Your task to perform on an android device: Open calendar and show me the third week of next month Image 0: 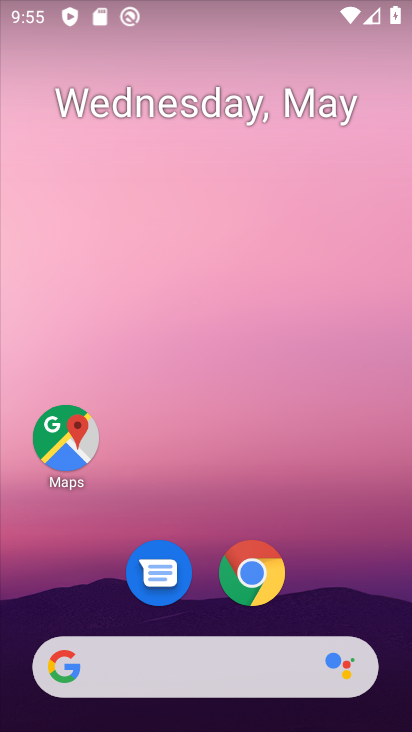
Step 0: drag from (249, 407) to (144, 0)
Your task to perform on an android device: Open calendar and show me the third week of next month Image 1: 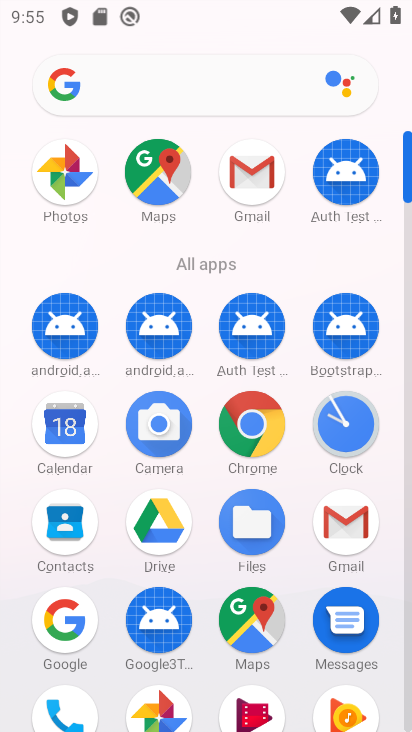
Step 1: click (54, 424)
Your task to perform on an android device: Open calendar and show me the third week of next month Image 2: 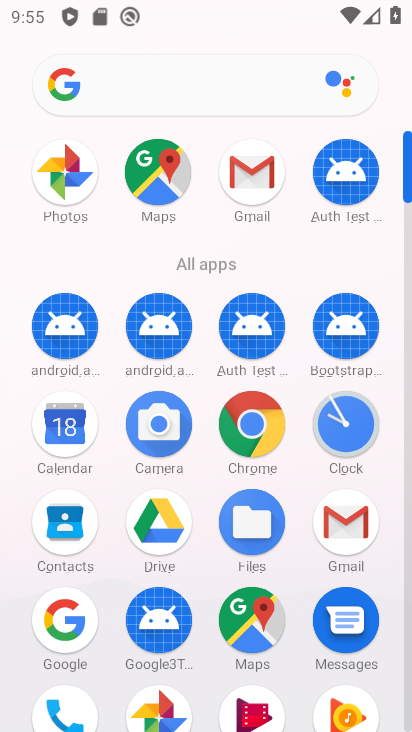
Step 2: click (60, 419)
Your task to perform on an android device: Open calendar and show me the third week of next month Image 3: 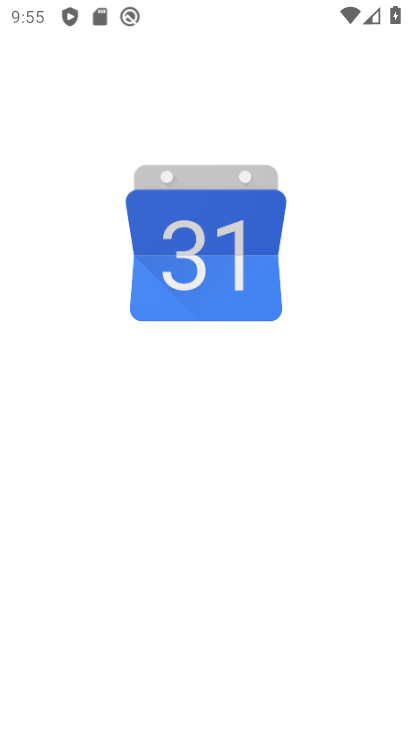
Step 3: click (61, 413)
Your task to perform on an android device: Open calendar and show me the third week of next month Image 4: 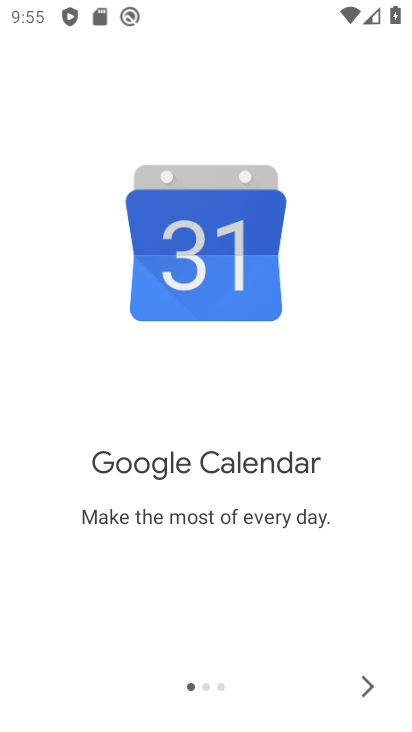
Step 4: click (369, 683)
Your task to perform on an android device: Open calendar and show me the third week of next month Image 5: 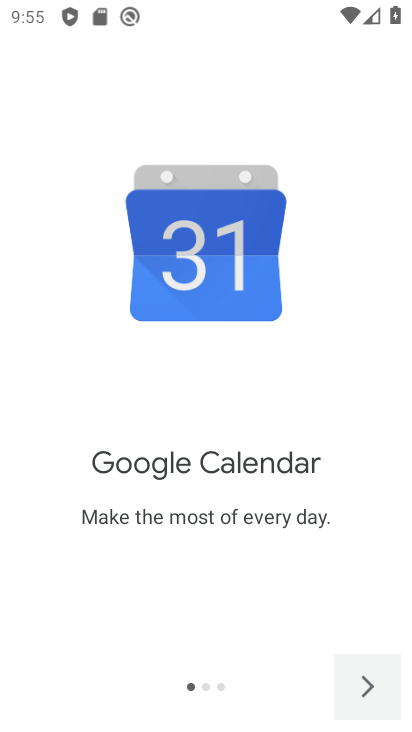
Step 5: click (359, 660)
Your task to perform on an android device: Open calendar and show me the third week of next month Image 6: 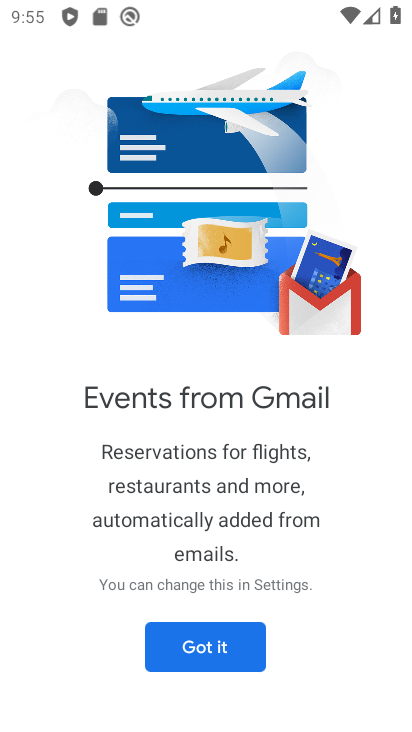
Step 6: click (200, 646)
Your task to perform on an android device: Open calendar and show me the third week of next month Image 7: 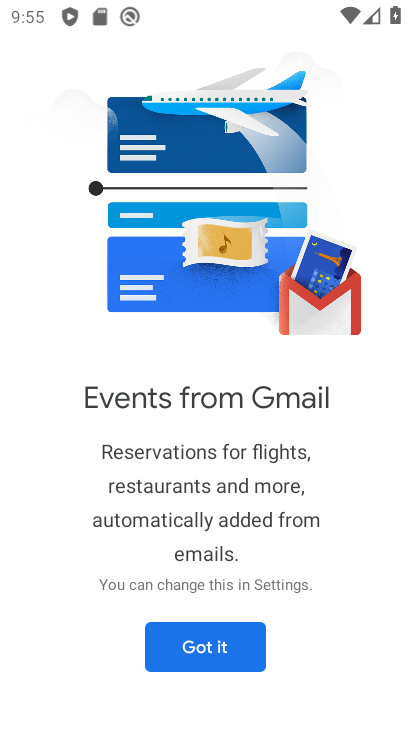
Step 7: click (203, 642)
Your task to perform on an android device: Open calendar and show me the third week of next month Image 8: 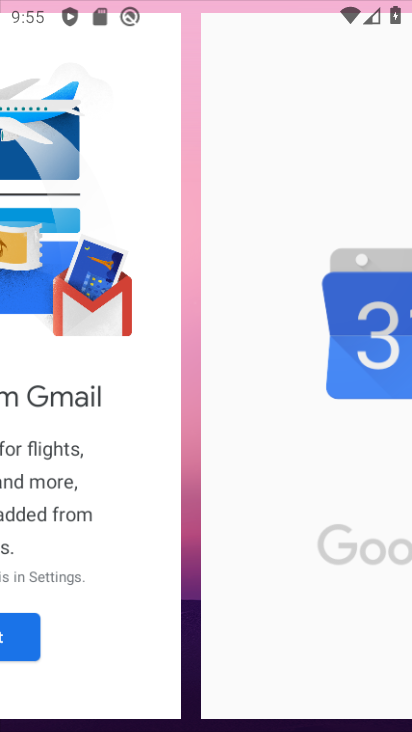
Step 8: click (196, 642)
Your task to perform on an android device: Open calendar and show me the third week of next month Image 9: 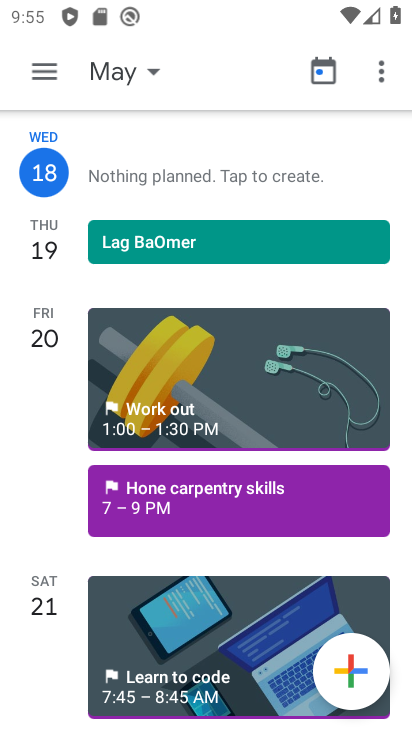
Step 9: drag from (207, 544) to (142, 4)
Your task to perform on an android device: Open calendar and show me the third week of next month Image 10: 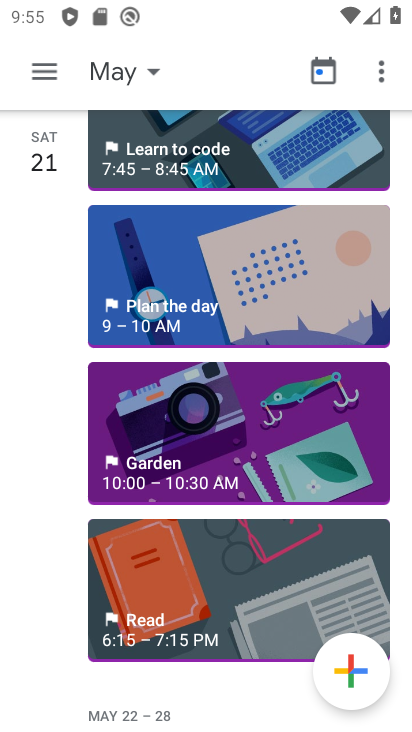
Step 10: drag from (138, 330) to (138, 92)
Your task to perform on an android device: Open calendar and show me the third week of next month Image 11: 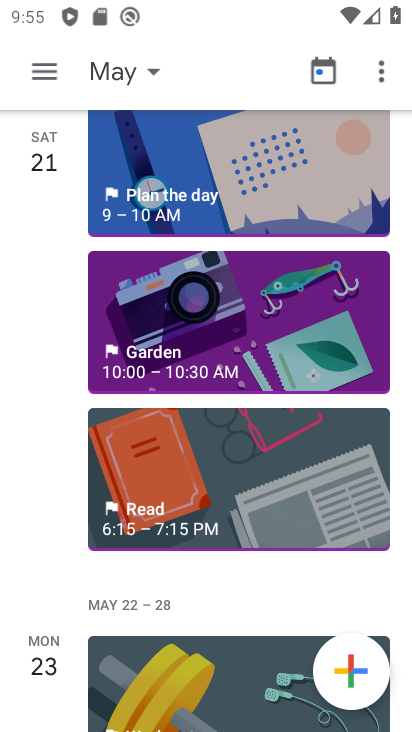
Step 11: drag from (140, 202) to (152, 8)
Your task to perform on an android device: Open calendar and show me the third week of next month Image 12: 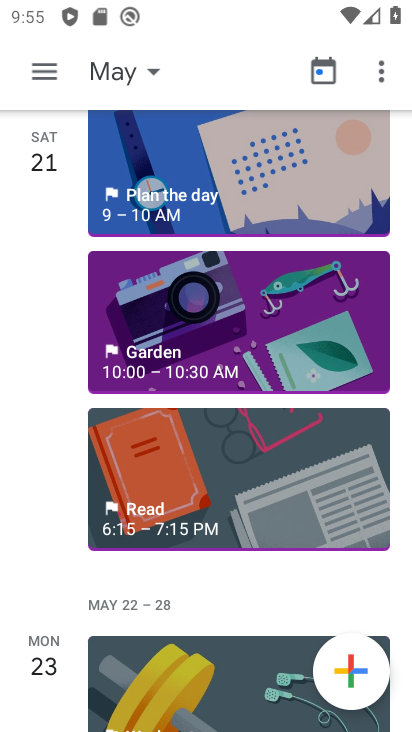
Step 12: drag from (171, 307) to (175, 24)
Your task to perform on an android device: Open calendar and show me the third week of next month Image 13: 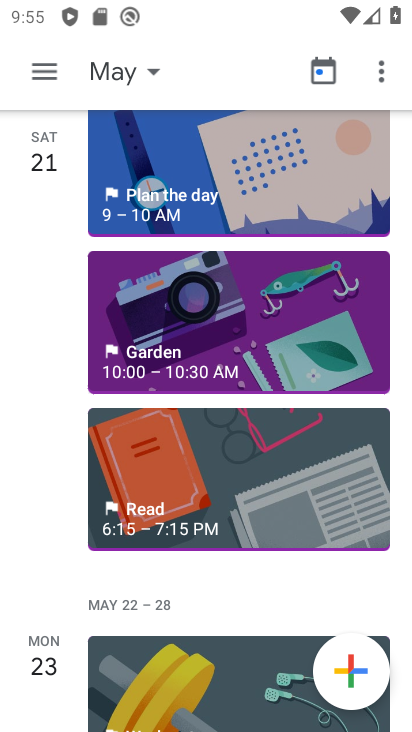
Step 13: drag from (190, 404) to (167, 78)
Your task to perform on an android device: Open calendar and show me the third week of next month Image 14: 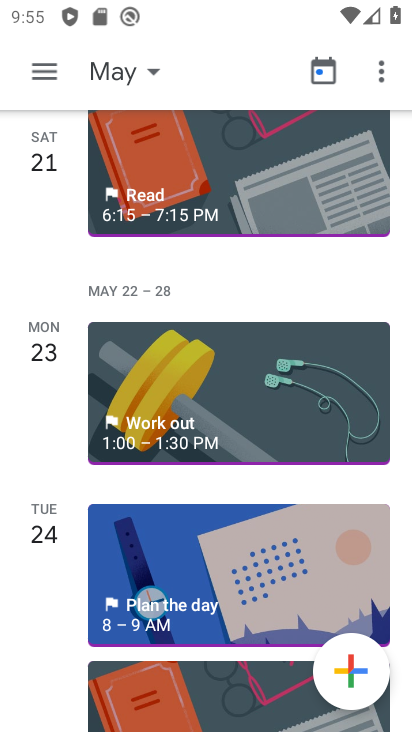
Step 14: drag from (190, 558) to (157, 166)
Your task to perform on an android device: Open calendar and show me the third week of next month Image 15: 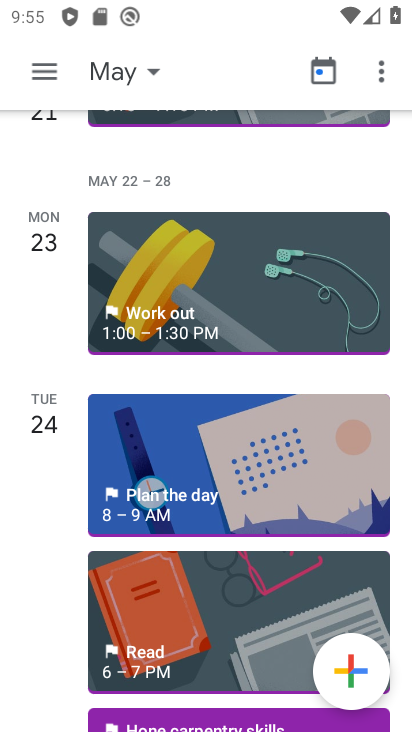
Step 15: drag from (165, 464) to (159, 159)
Your task to perform on an android device: Open calendar and show me the third week of next month Image 16: 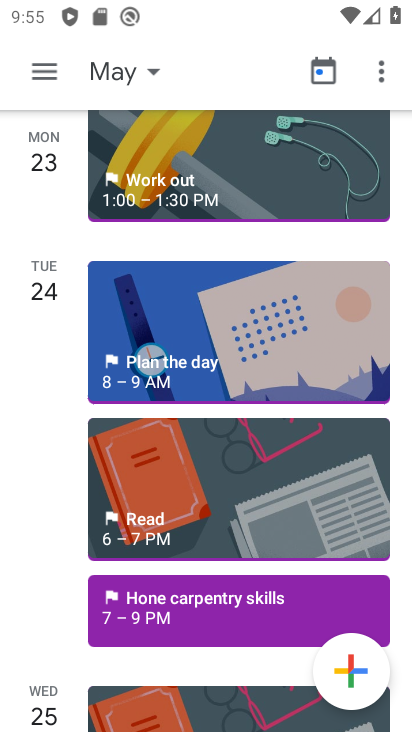
Step 16: drag from (176, 370) to (148, 92)
Your task to perform on an android device: Open calendar and show me the third week of next month Image 17: 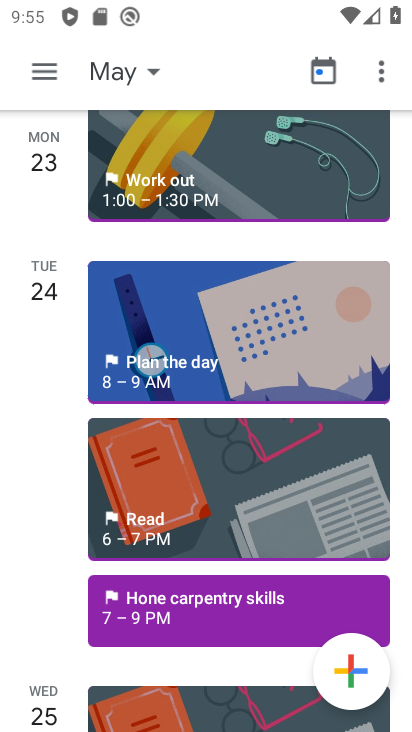
Step 17: drag from (160, 418) to (159, 126)
Your task to perform on an android device: Open calendar and show me the third week of next month Image 18: 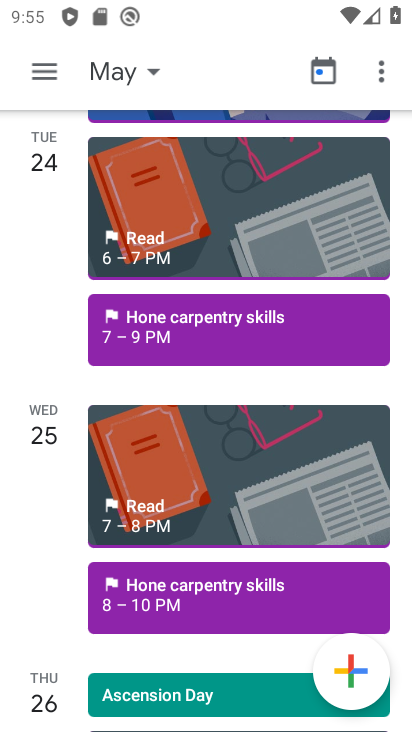
Step 18: drag from (216, 618) to (131, 41)
Your task to perform on an android device: Open calendar and show me the third week of next month Image 19: 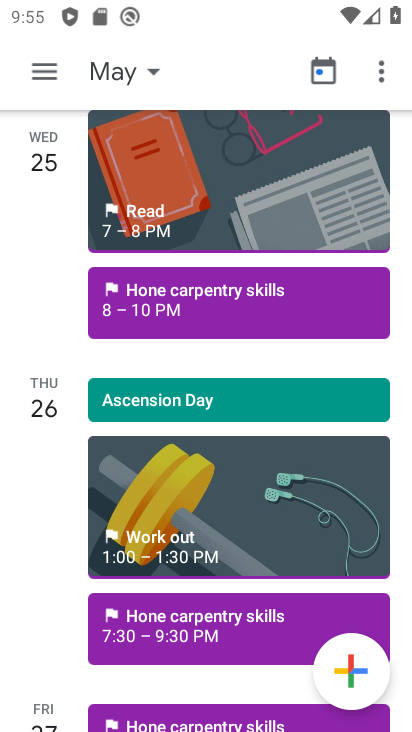
Step 19: drag from (168, 413) to (168, 63)
Your task to perform on an android device: Open calendar and show me the third week of next month Image 20: 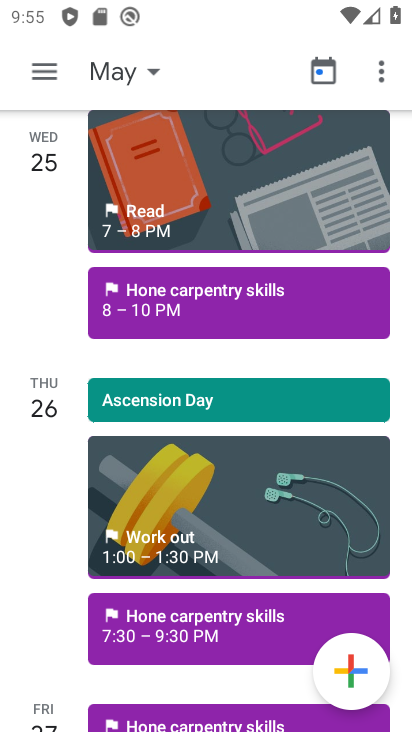
Step 20: drag from (211, 575) to (175, 121)
Your task to perform on an android device: Open calendar and show me the third week of next month Image 21: 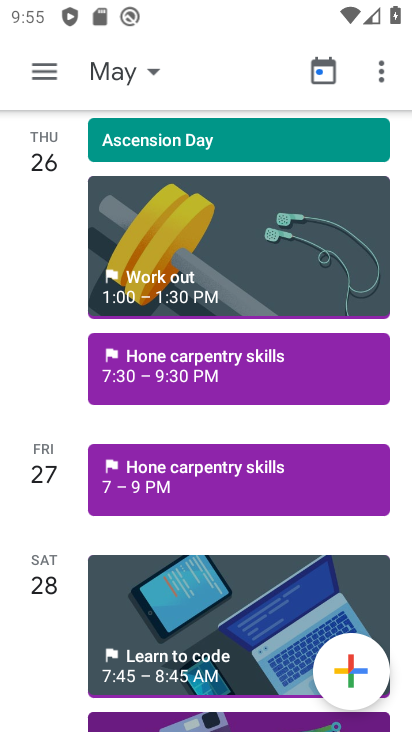
Step 21: drag from (184, 339) to (140, 67)
Your task to perform on an android device: Open calendar and show me the third week of next month Image 22: 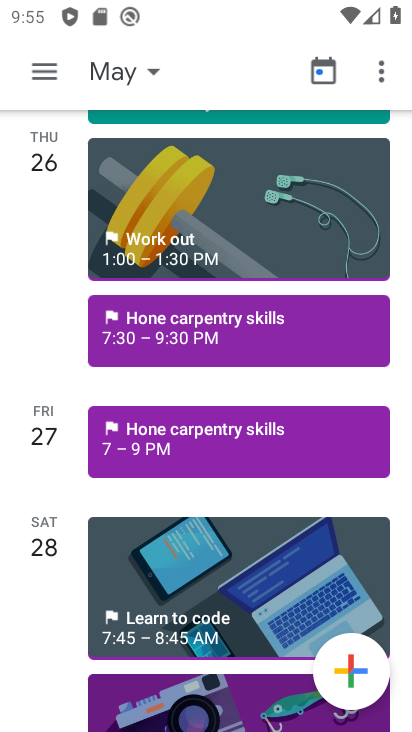
Step 22: drag from (113, 399) to (113, 146)
Your task to perform on an android device: Open calendar and show me the third week of next month Image 23: 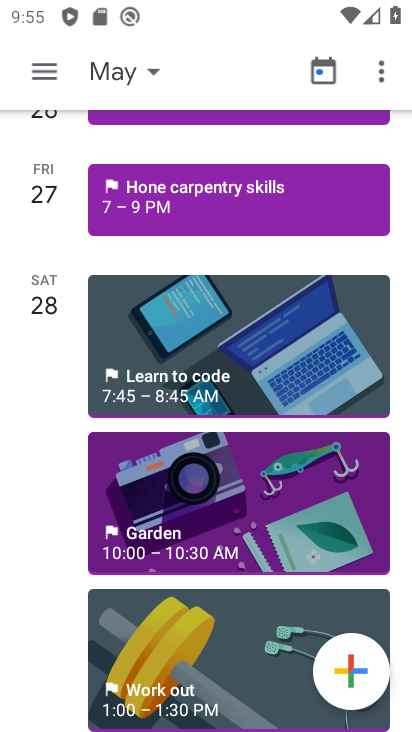
Step 23: drag from (167, 420) to (168, 184)
Your task to perform on an android device: Open calendar and show me the third week of next month Image 24: 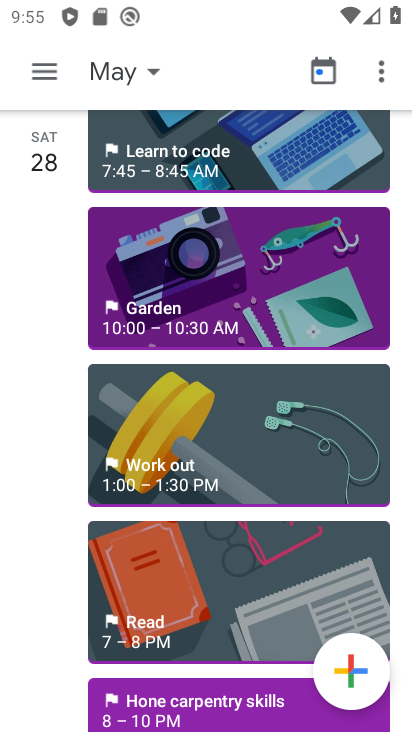
Step 24: drag from (162, 218) to (154, 57)
Your task to perform on an android device: Open calendar and show me the third week of next month Image 25: 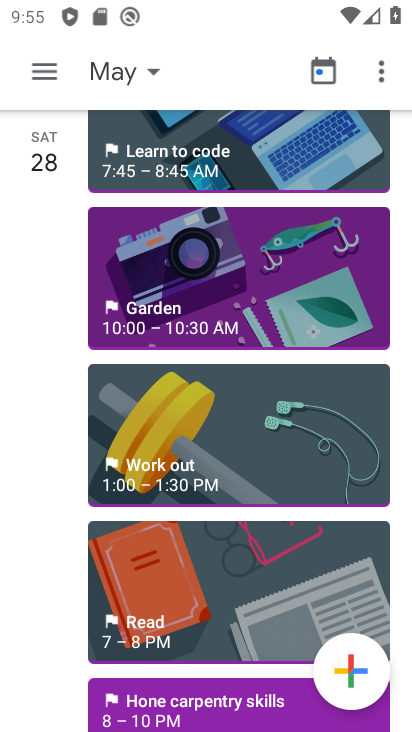
Step 25: drag from (134, 529) to (141, 59)
Your task to perform on an android device: Open calendar and show me the third week of next month Image 26: 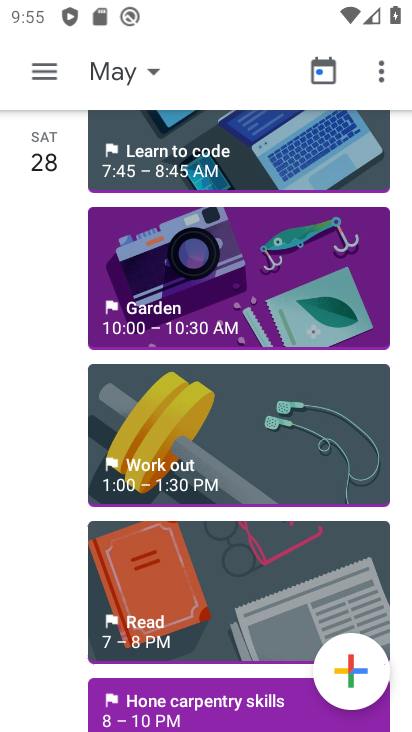
Step 26: drag from (189, 275) to (192, 16)
Your task to perform on an android device: Open calendar and show me the third week of next month Image 27: 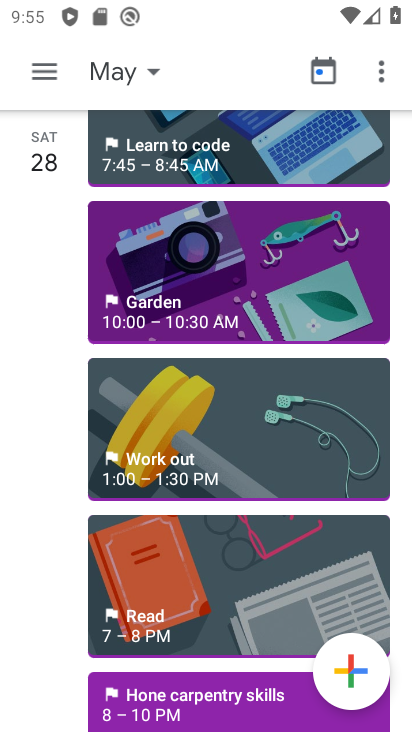
Step 27: click (200, 72)
Your task to perform on an android device: Open calendar and show me the third week of next month Image 28: 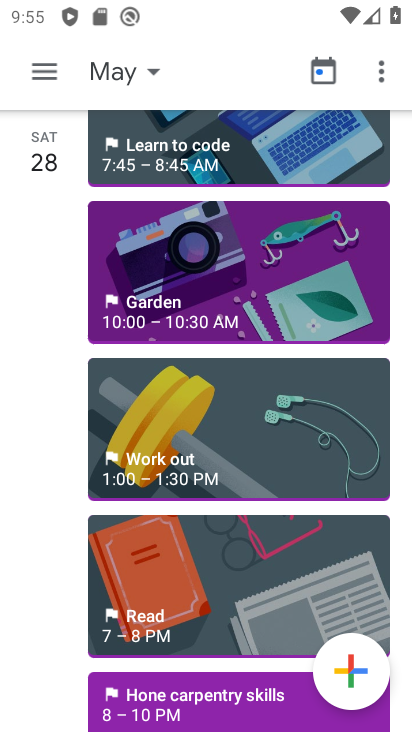
Step 28: drag from (151, 417) to (110, 56)
Your task to perform on an android device: Open calendar and show me the third week of next month Image 29: 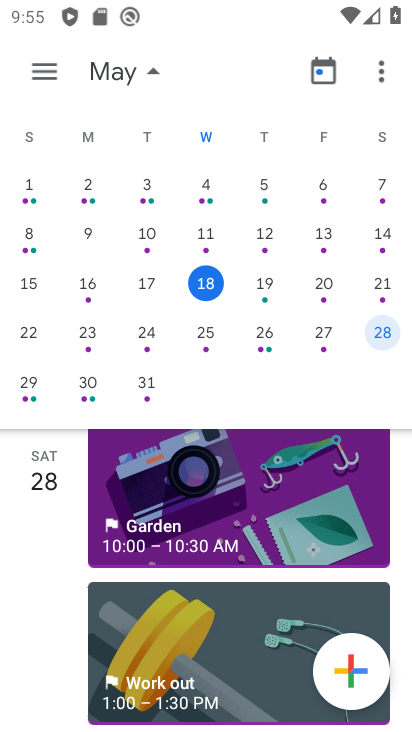
Step 29: drag from (155, 503) to (141, 109)
Your task to perform on an android device: Open calendar and show me the third week of next month Image 30: 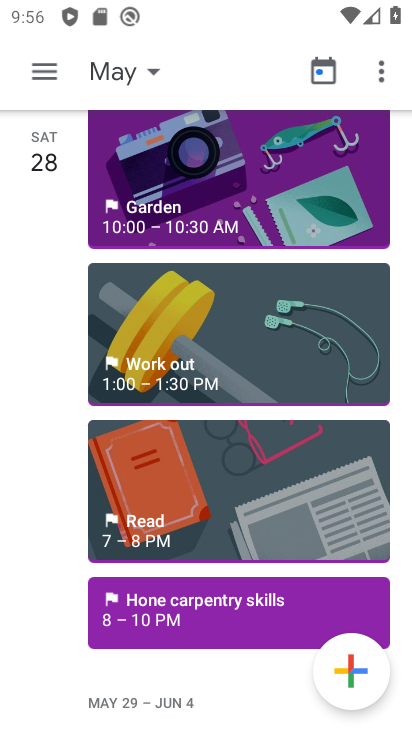
Step 30: drag from (204, 568) to (165, 266)
Your task to perform on an android device: Open calendar and show me the third week of next month Image 31: 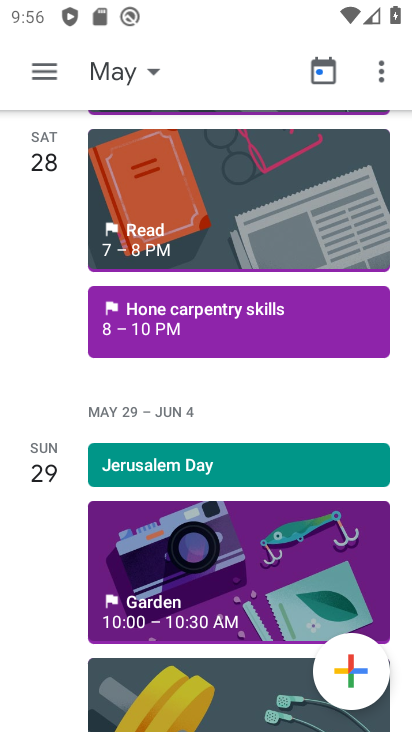
Step 31: click (151, 74)
Your task to perform on an android device: Open calendar and show me the third week of next month Image 32: 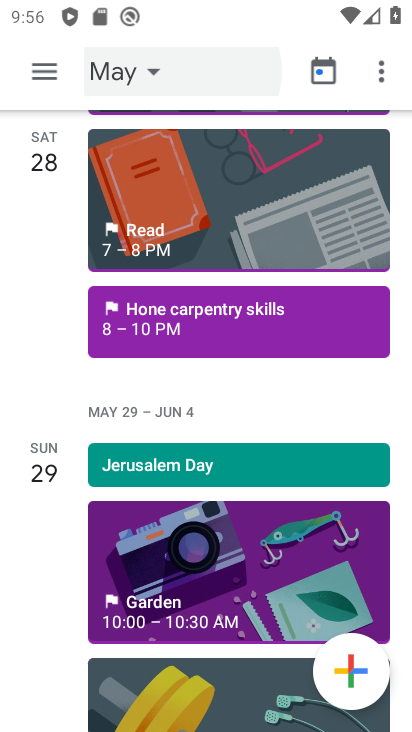
Step 32: click (156, 71)
Your task to perform on an android device: Open calendar and show me the third week of next month Image 33: 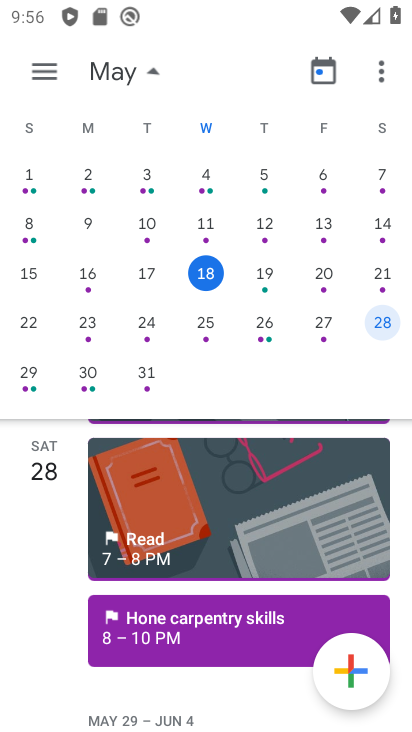
Step 33: click (156, 71)
Your task to perform on an android device: Open calendar and show me the third week of next month Image 34: 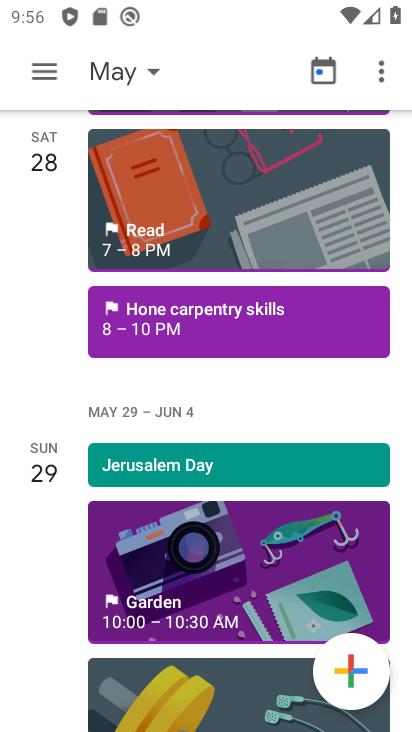
Step 34: click (155, 68)
Your task to perform on an android device: Open calendar and show me the third week of next month Image 35: 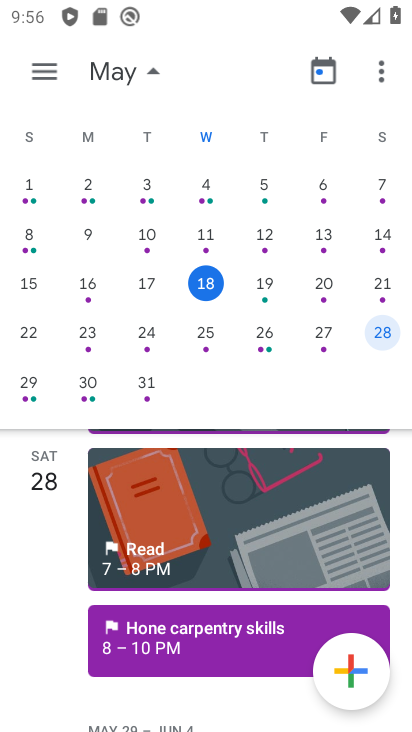
Step 35: drag from (310, 287) to (30, 242)
Your task to perform on an android device: Open calendar and show me the third week of next month Image 36: 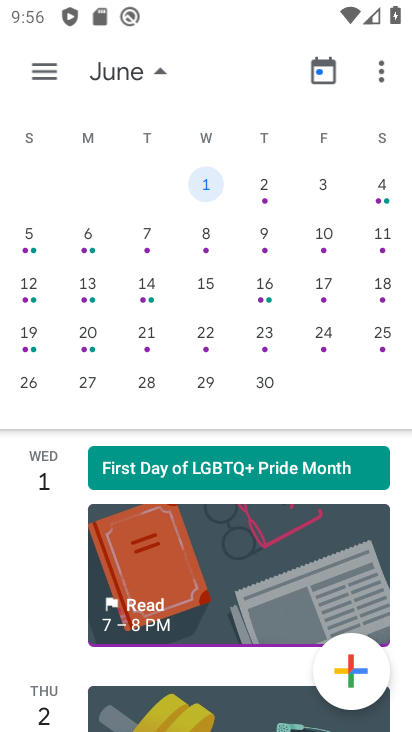
Step 36: click (210, 277)
Your task to perform on an android device: Open calendar and show me the third week of next month Image 37: 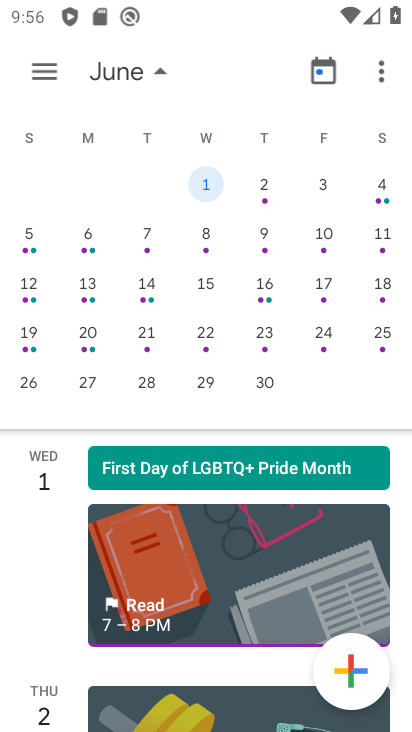
Step 37: click (210, 277)
Your task to perform on an android device: Open calendar and show me the third week of next month Image 38: 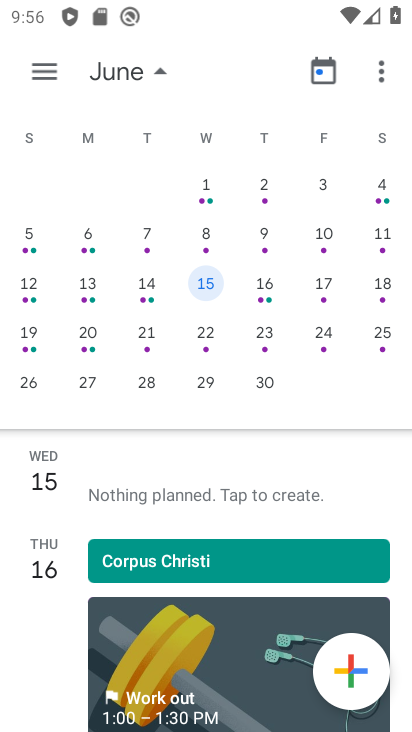
Step 38: click (211, 278)
Your task to perform on an android device: Open calendar and show me the third week of next month Image 39: 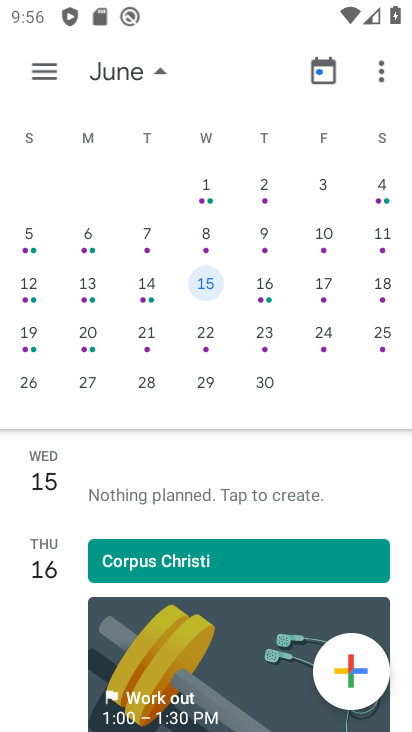
Step 39: task complete